Your task to perform on an android device: toggle airplane mode Image 0: 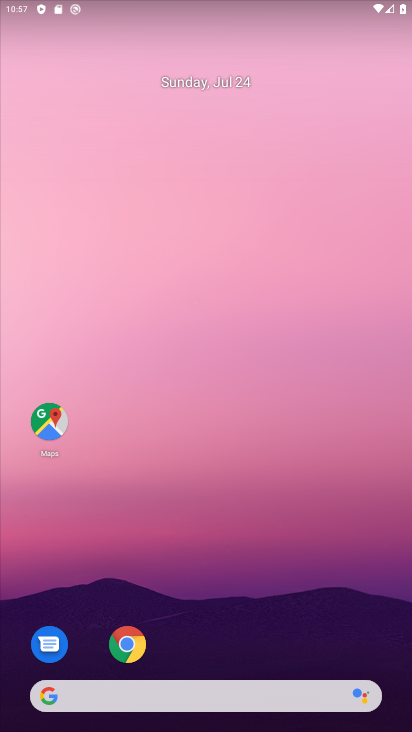
Step 0: drag from (244, 606) to (285, 8)
Your task to perform on an android device: toggle airplane mode Image 1: 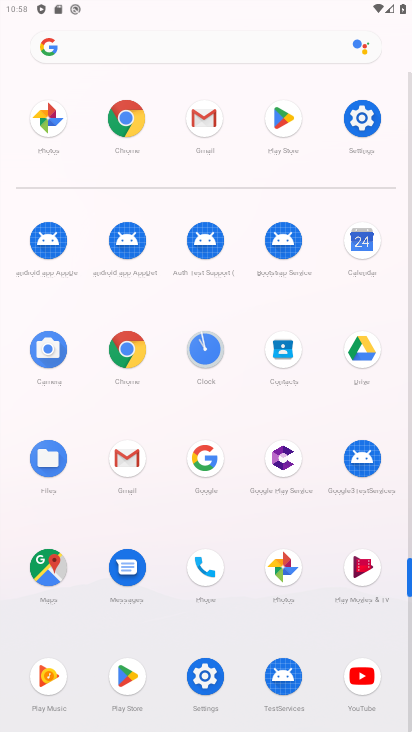
Step 1: click (364, 115)
Your task to perform on an android device: toggle airplane mode Image 2: 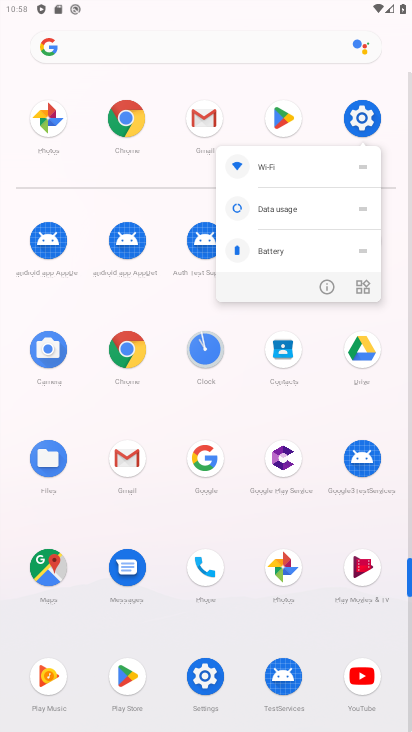
Step 2: click (367, 118)
Your task to perform on an android device: toggle airplane mode Image 3: 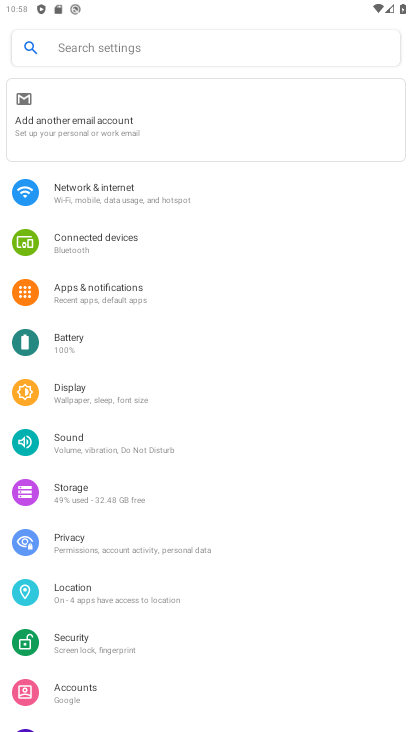
Step 3: click (95, 202)
Your task to perform on an android device: toggle airplane mode Image 4: 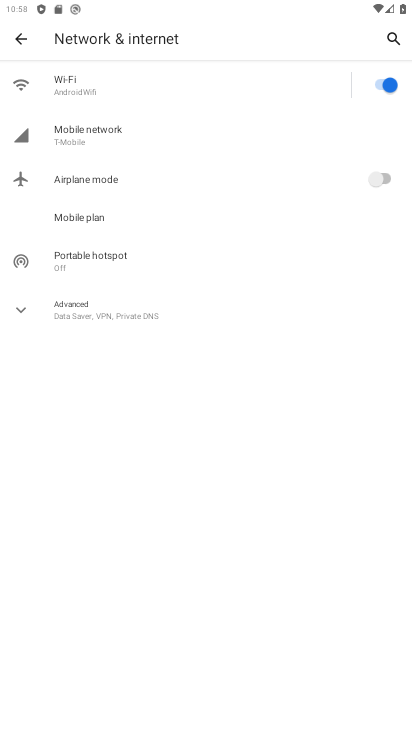
Step 4: click (377, 181)
Your task to perform on an android device: toggle airplane mode Image 5: 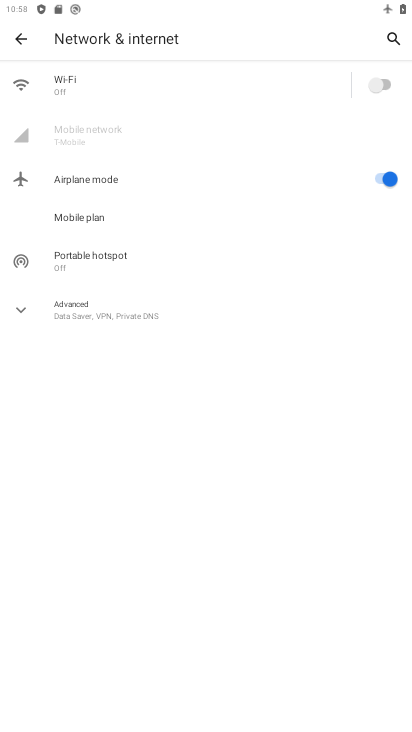
Step 5: task complete